Your task to perform on an android device: change notification settings in the gmail app Image 0: 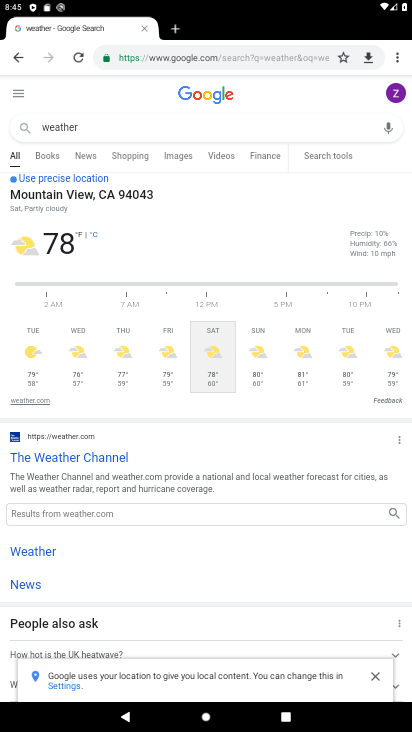
Step 0: press home button
Your task to perform on an android device: change notification settings in the gmail app Image 1: 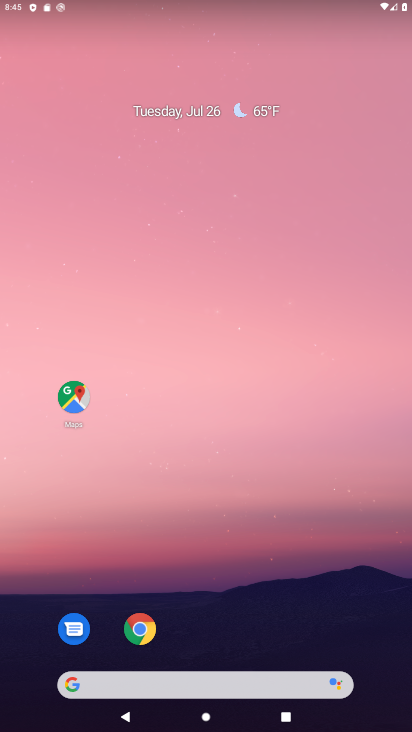
Step 1: drag from (238, 541) to (205, 29)
Your task to perform on an android device: change notification settings in the gmail app Image 2: 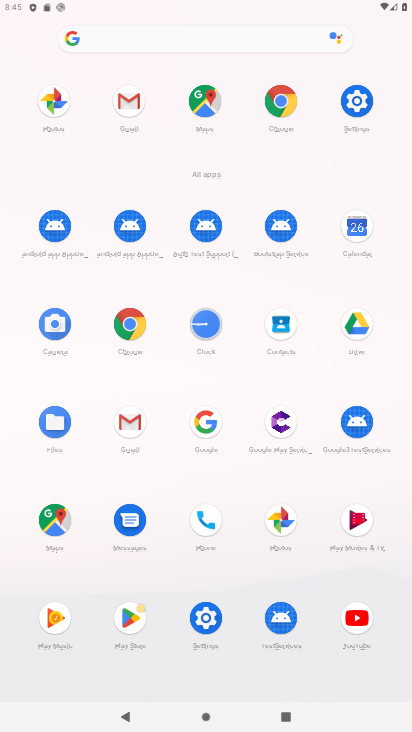
Step 2: click (135, 95)
Your task to perform on an android device: change notification settings in the gmail app Image 3: 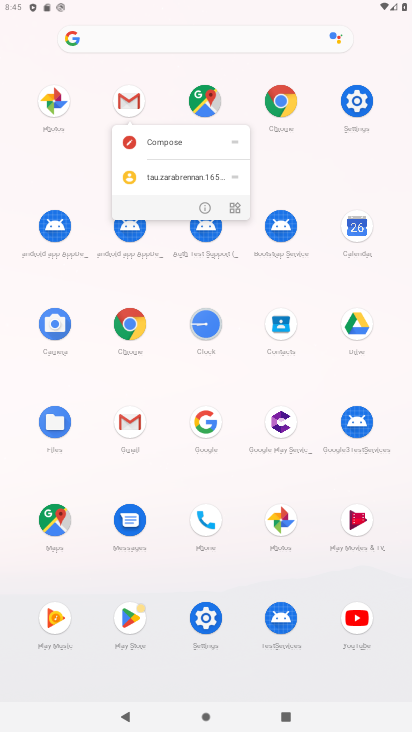
Step 3: click (135, 96)
Your task to perform on an android device: change notification settings in the gmail app Image 4: 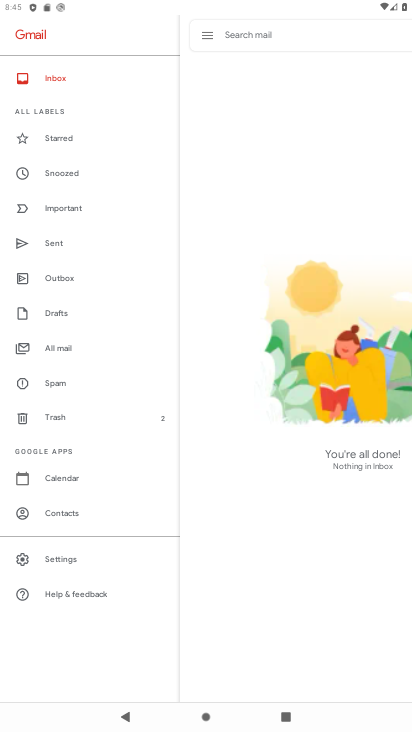
Step 4: click (67, 567)
Your task to perform on an android device: change notification settings in the gmail app Image 5: 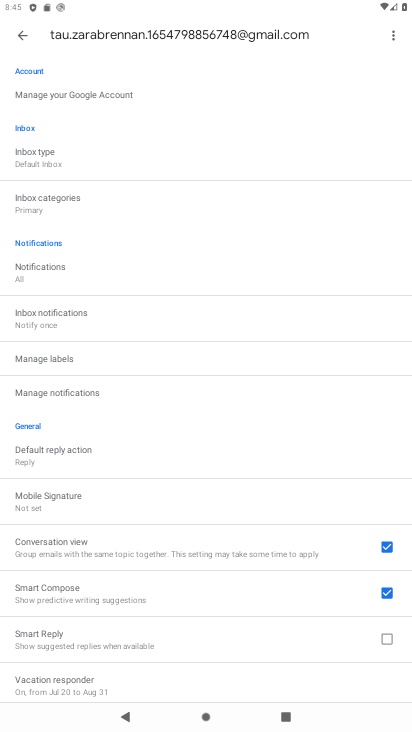
Step 5: click (82, 386)
Your task to perform on an android device: change notification settings in the gmail app Image 6: 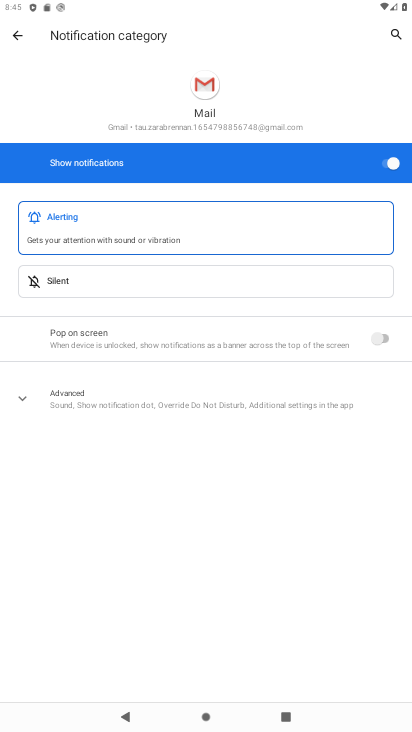
Step 6: click (387, 149)
Your task to perform on an android device: change notification settings in the gmail app Image 7: 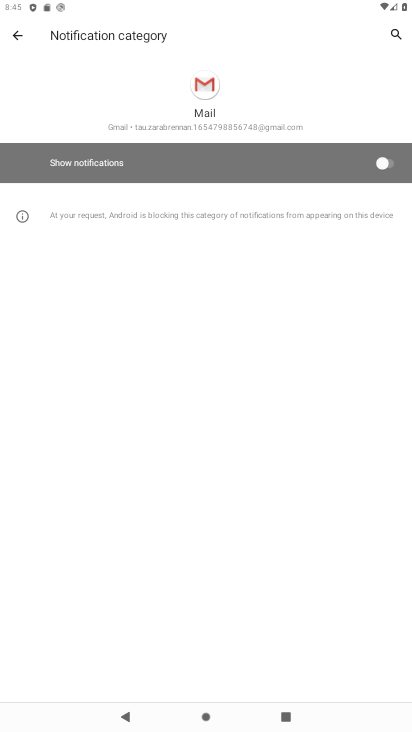
Step 7: task complete